Your task to perform on an android device: Search for logitech g pro on bestbuy.com, select the first entry, add it to the cart, then select checkout. Image 0: 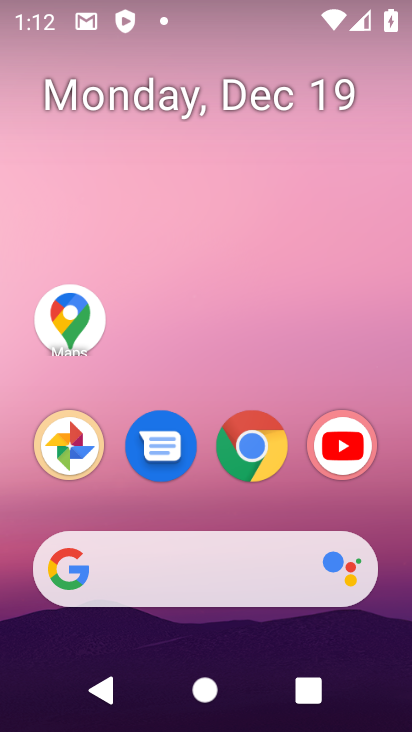
Step 0: click (195, 592)
Your task to perform on an android device: Search for logitech g pro on bestbuy.com, select the first entry, add it to the cart, then select checkout. Image 1: 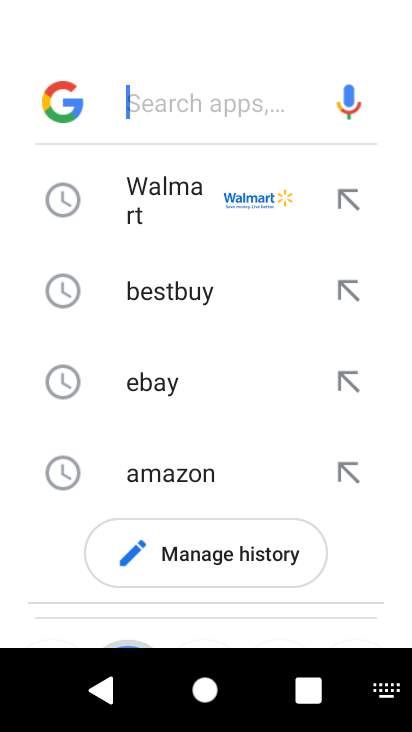
Step 1: type "bestbuy"
Your task to perform on an android device: Search for logitech g pro on bestbuy.com, select the first entry, add it to the cart, then select checkout. Image 2: 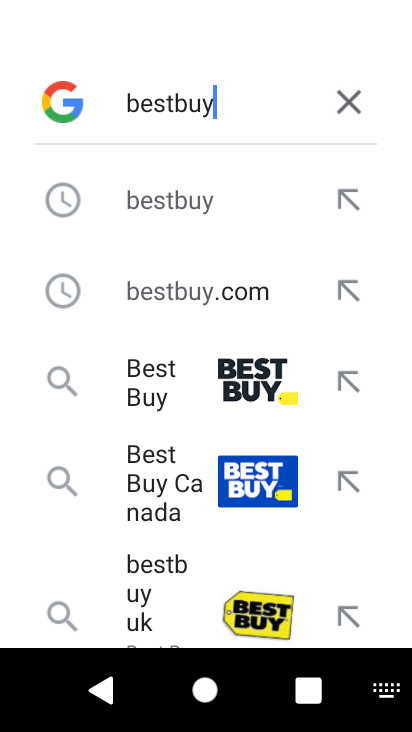
Step 2: click (138, 205)
Your task to perform on an android device: Search for logitech g pro on bestbuy.com, select the first entry, add it to the cart, then select checkout. Image 3: 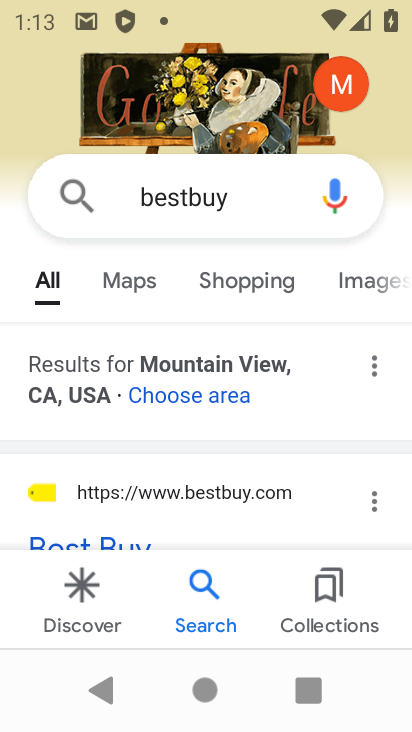
Step 3: click (82, 519)
Your task to perform on an android device: Search for logitech g pro on bestbuy.com, select the first entry, add it to the cart, then select checkout. Image 4: 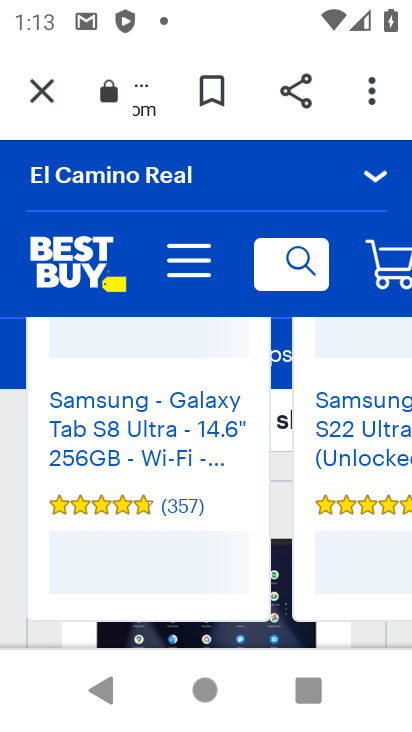
Step 4: click (268, 275)
Your task to perform on an android device: Search for logitech g pro on bestbuy.com, select the first entry, add it to the cart, then select checkout. Image 5: 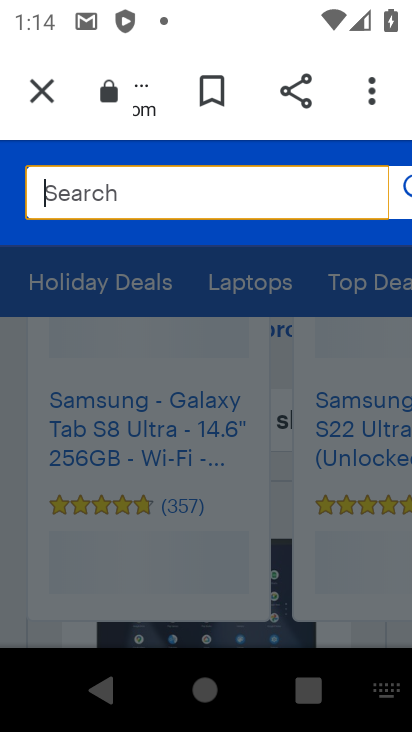
Step 5: type "logitech g pro"
Your task to perform on an android device: Search for logitech g pro on bestbuy.com, select the first entry, add it to the cart, then select checkout. Image 6: 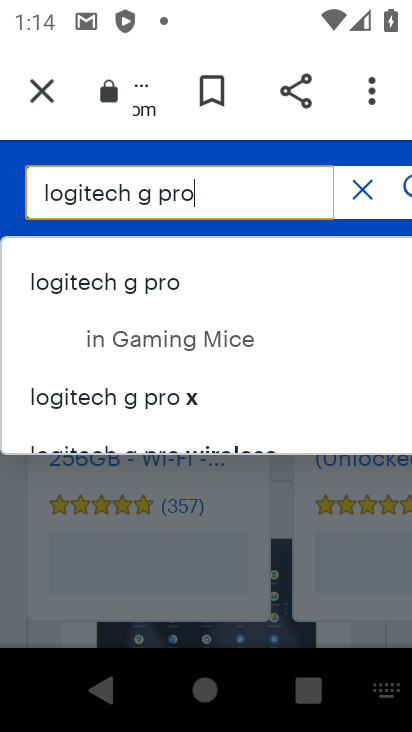
Step 6: click (400, 197)
Your task to perform on an android device: Search for logitech g pro on bestbuy.com, select the first entry, add it to the cart, then select checkout. Image 7: 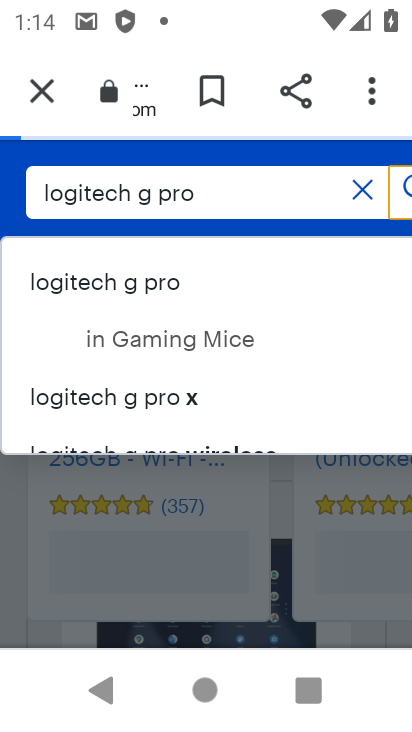
Step 7: click (126, 291)
Your task to perform on an android device: Search for logitech g pro on bestbuy.com, select the first entry, add it to the cart, then select checkout. Image 8: 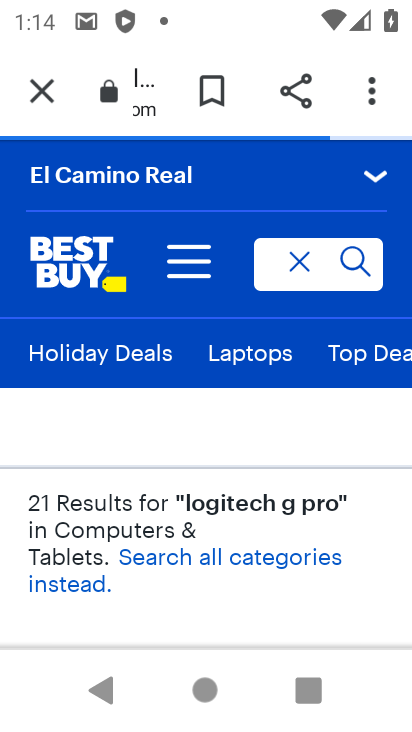
Step 8: drag from (209, 616) to (208, 349)
Your task to perform on an android device: Search for logitech g pro on bestbuy.com, select the first entry, add it to the cart, then select checkout. Image 9: 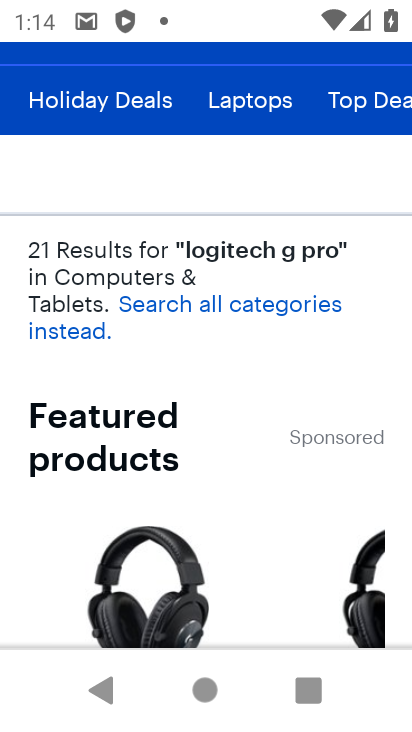
Step 9: drag from (237, 507) to (217, 211)
Your task to perform on an android device: Search for logitech g pro on bestbuy.com, select the first entry, add it to the cart, then select checkout. Image 10: 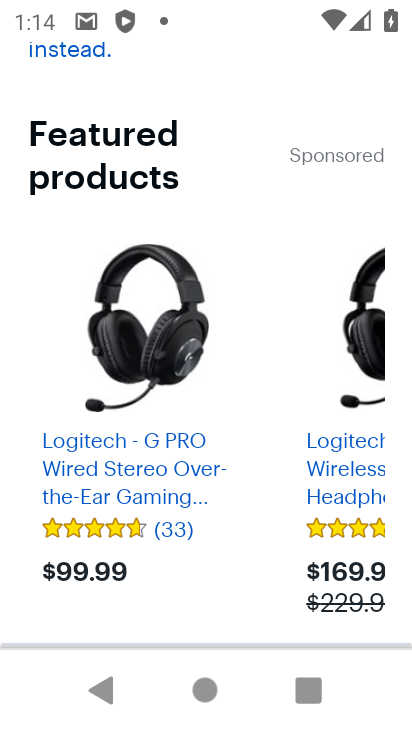
Step 10: click (136, 513)
Your task to perform on an android device: Search for logitech g pro on bestbuy.com, select the first entry, add it to the cart, then select checkout. Image 11: 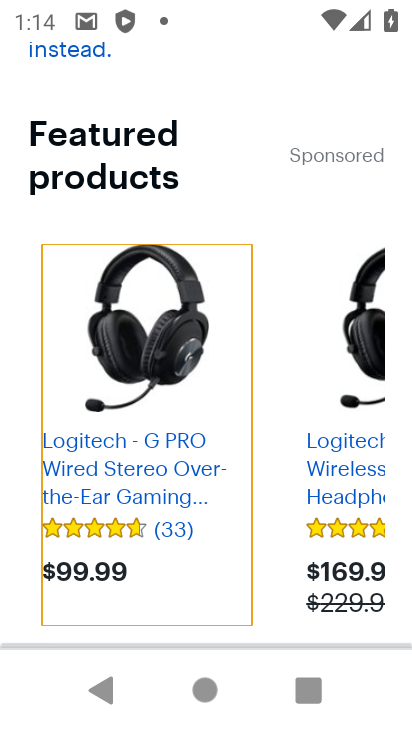
Step 11: click (162, 460)
Your task to perform on an android device: Search for logitech g pro on bestbuy.com, select the first entry, add it to the cart, then select checkout. Image 12: 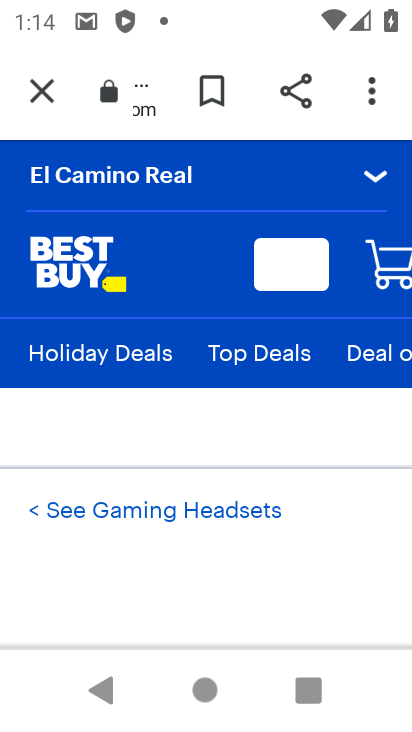
Step 12: task complete